Your task to perform on an android device: Go to accessibility settings Image 0: 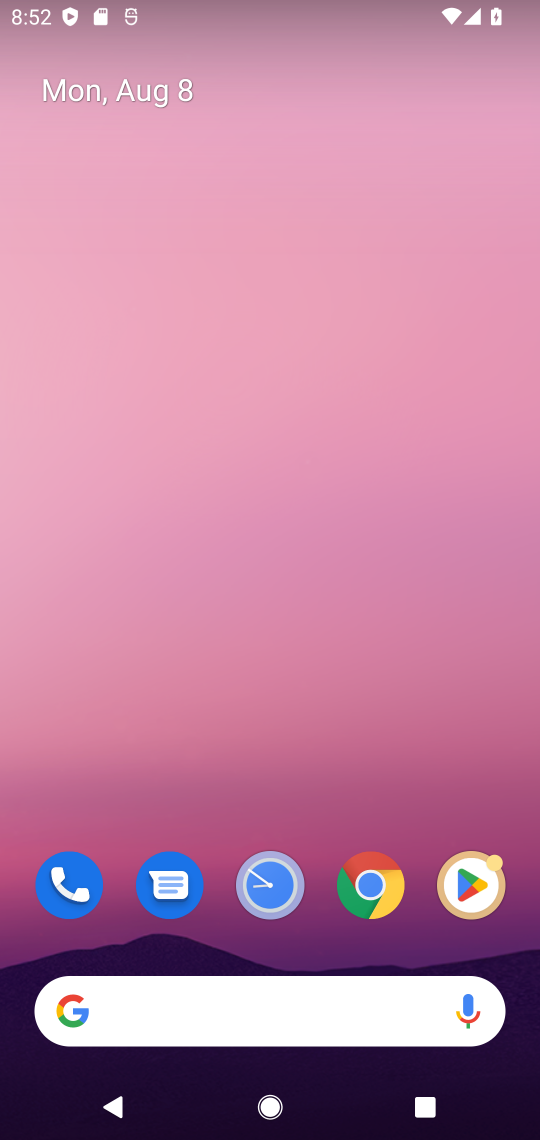
Step 0: drag from (195, 1041) to (275, 39)
Your task to perform on an android device: Go to accessibility settings Image 1: 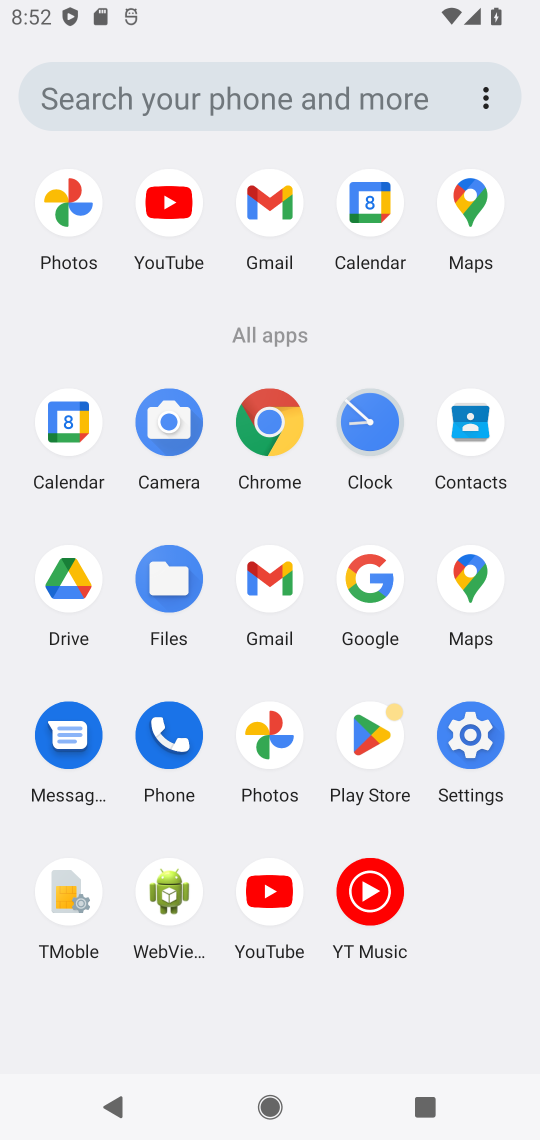
Step 1: click (468, 753)
Your task to perform on an android device: Go to accessibility settings Image 2: 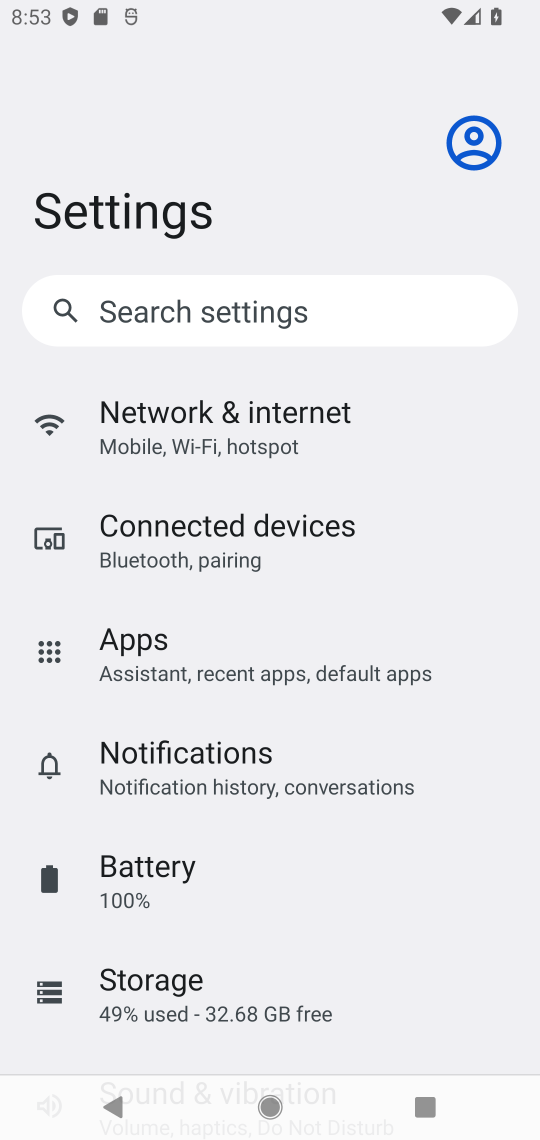
Step 2: drag from (292, 680) to (349, 17)
Your task to perform on an android device: Go to accessibility settings Image 3: 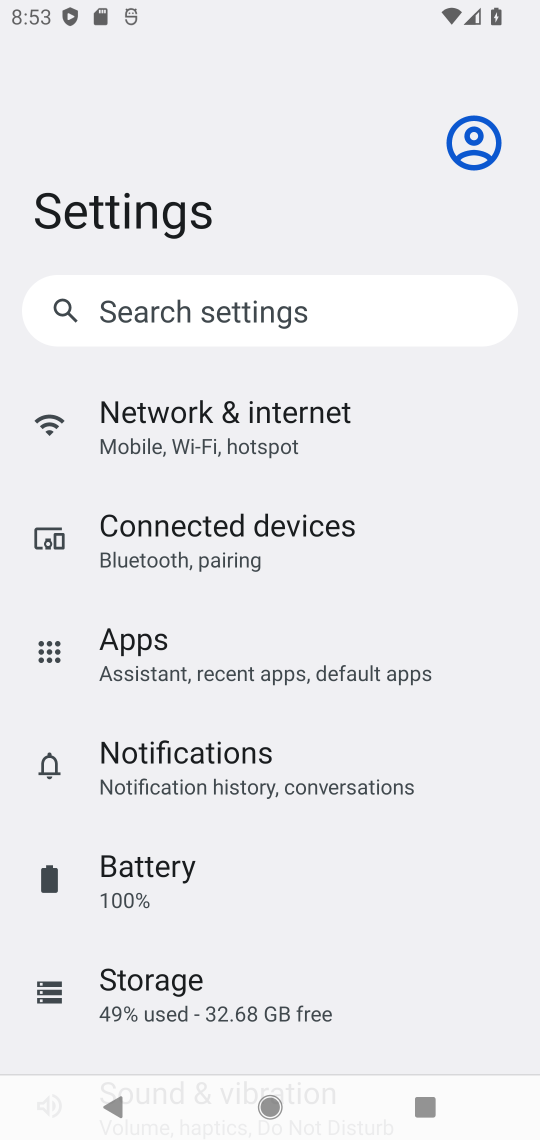
Step 3: drag from (326, 1005) to (357, 146)
Your task to perform on an android device: Go to accessibility settings Image 4: 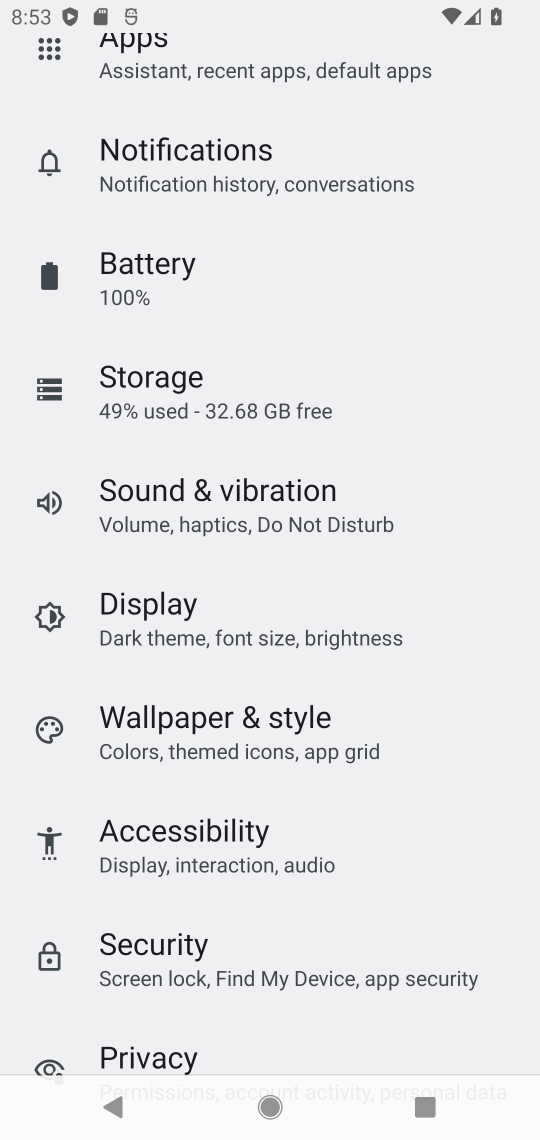
Step 4: click (367, 835)
Your task to perform on an android device: Go to accessibility settings Image 5: 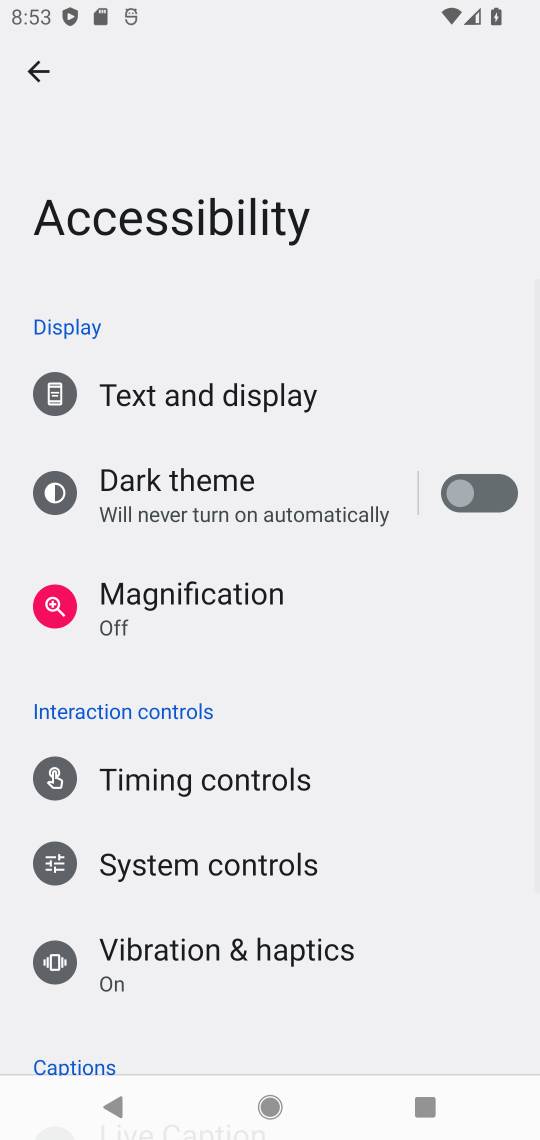
Step 5: task complete